Your task to perform on an android device: Search for sushi restaurants on Maps Image 0: 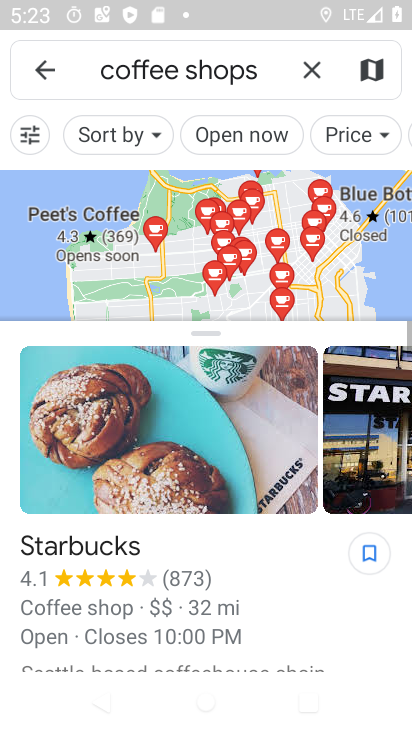
Step 0: press home button
Your task to perform on an android device: Search for sushi restaurants on Maps Image 1: 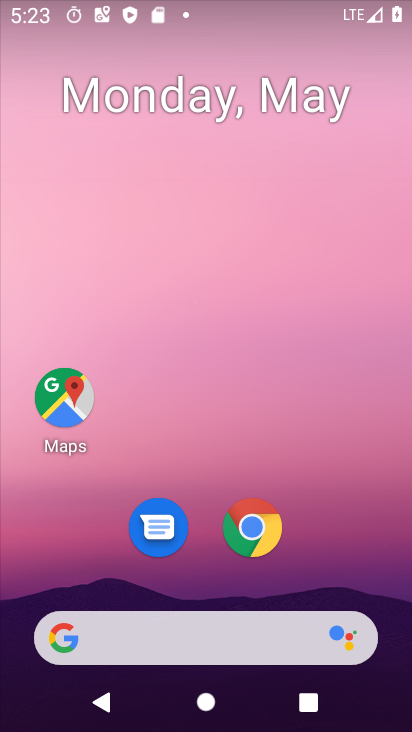
Step 1: drag from (399, 707) to (305, 119)
Your task to perform on an android device: Search for sushi restaurants on Maps Image 2: 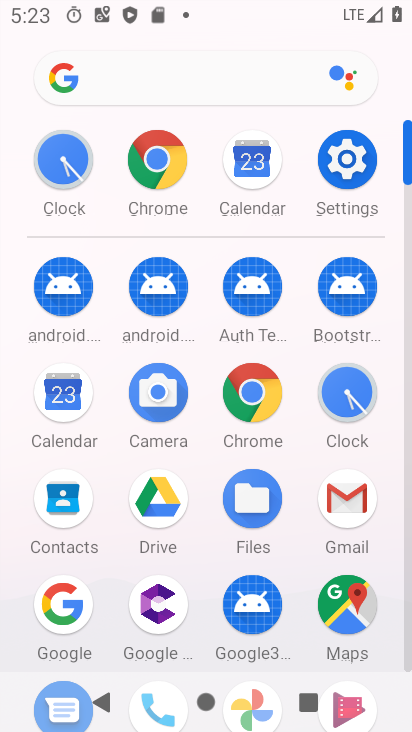
Step 2: click (345, 504)
Your task to perform on an android device: Search for sushi restaurants on Maps Image 3: 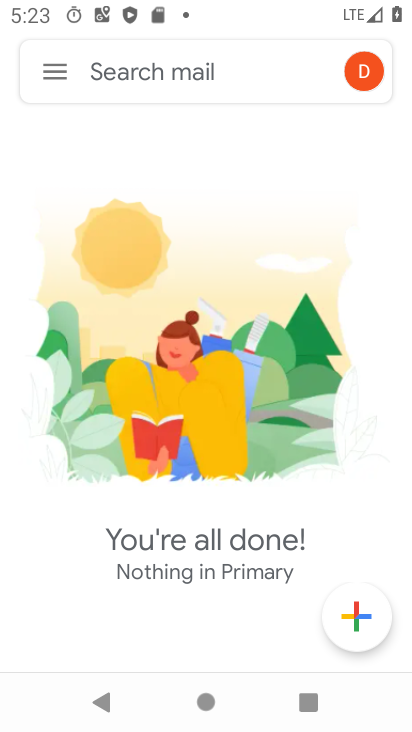
Step 3: press home button
Your task to perform on an android device: Search for sushi restaurants on Maps Image 4: 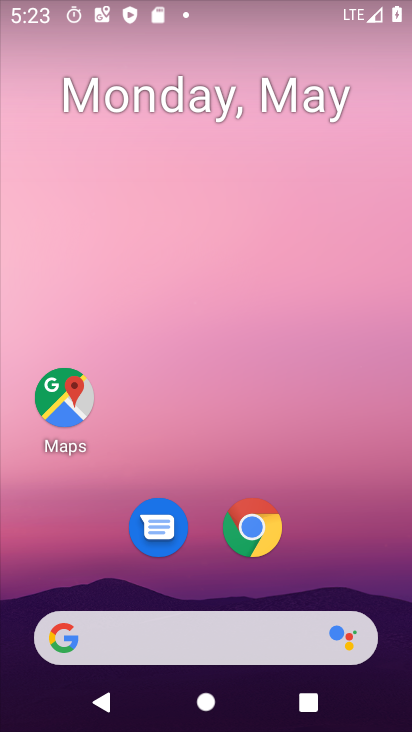
Step 4: drag from (402, 708) to (318, 177)
Your task to perform on an android device: Search for sushi restaurants on Maps Image 5: 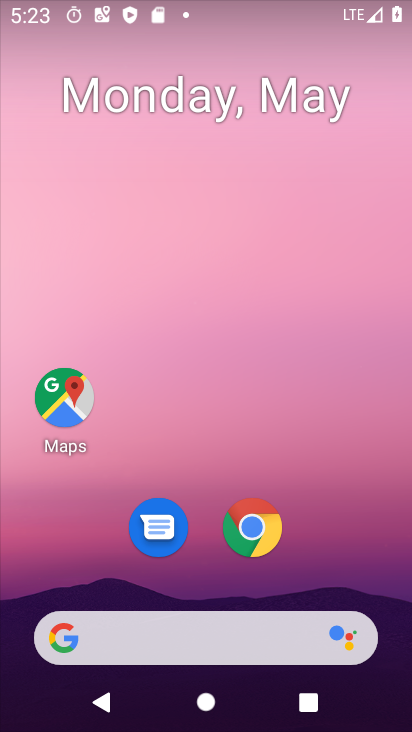
Step 5: click (58, 401)
Your task to perform on an android device: Search for sushi restaurants on Maps Image 6: 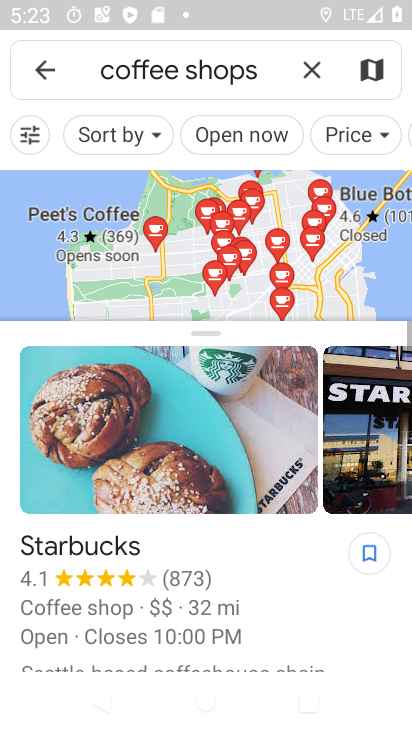
Step 6: click (319, 72)
Your task to perform on an android device: Search for sushi restaurants on Maps Image 7: 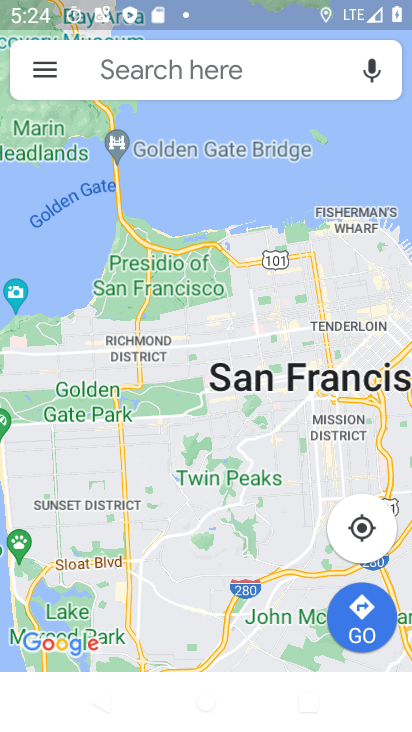
Step 7: click (153, 80)
Your task to perform on an android device: Search for sushi restaurants on Maps Image 8: 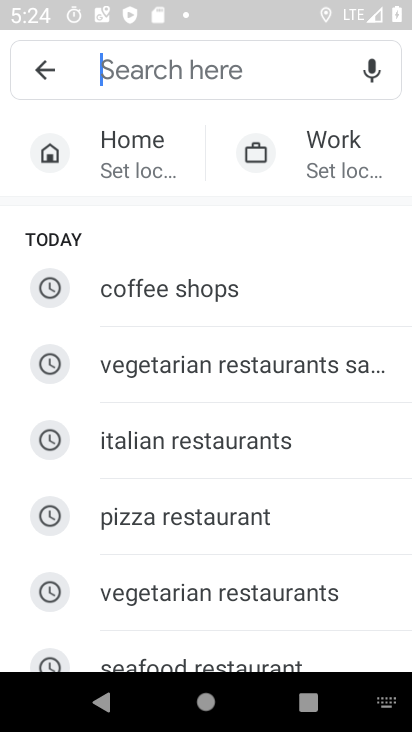
Step 8: type "sushi restaurants"
Your task to perform on an android device: Search for sushi restaurants on Maps Image 9: 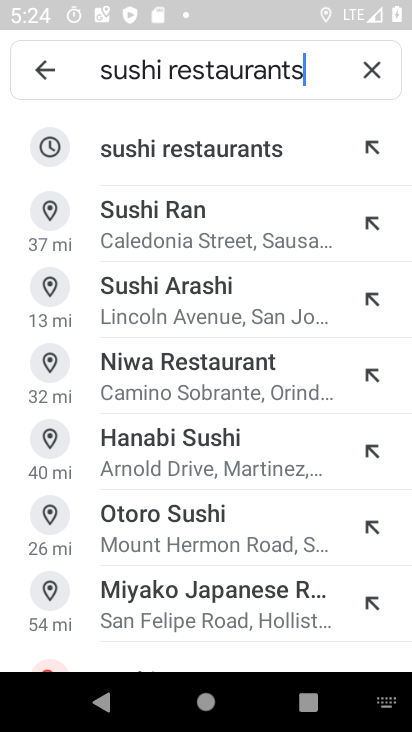
Step 9: click (168, 147)
Your task to perform on an android device: Search for sushi restaurants on Maps Image 10: 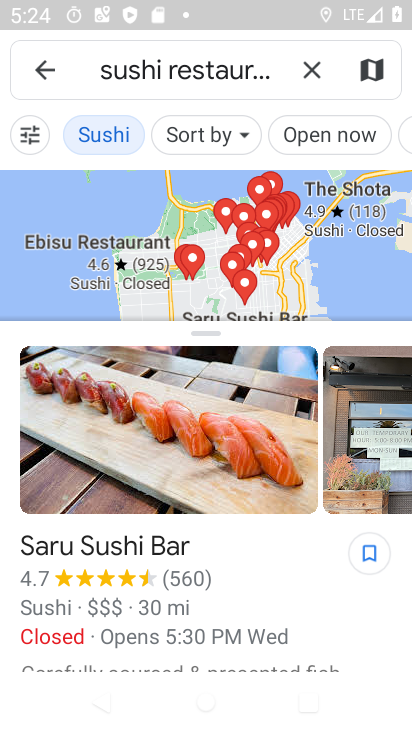
Step 10: task complete